Your task to perform on an android device: turn off airplane mode Image 0: 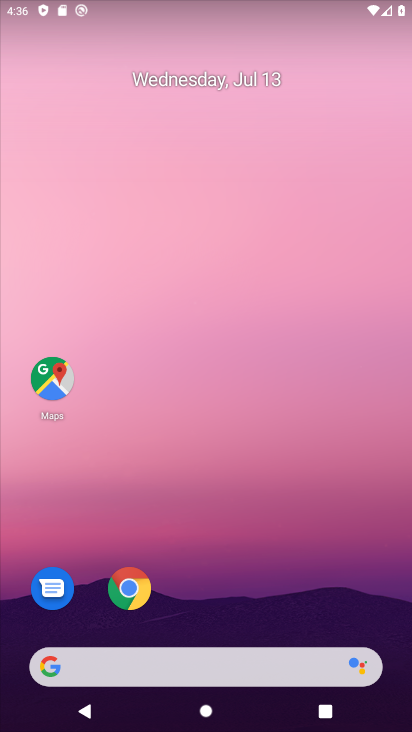
Step 0: drag from (205, 11) to (212, 696)
Your task to perform on an android device: turn off airplane mode Image 1: 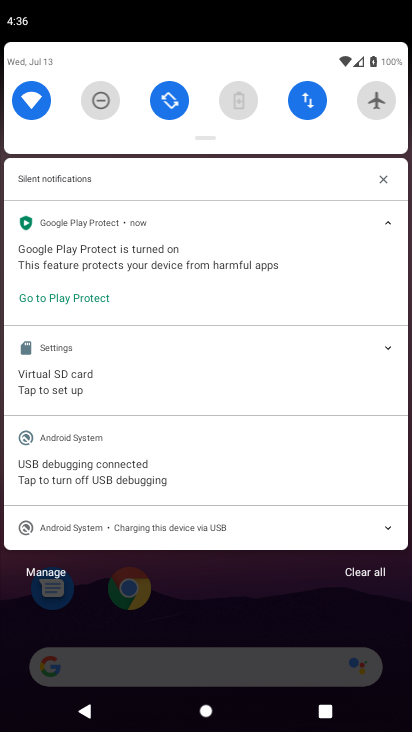
Step 1: task complete